Your task to perform on an android device: set an alarm Image 0: 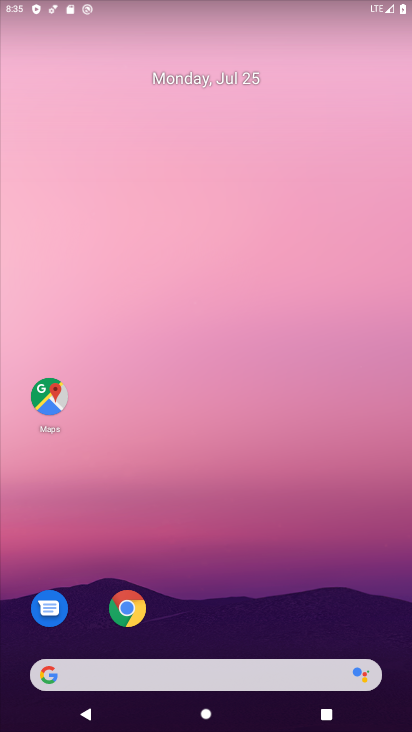
Step 0: drag from (233, 727) to (249, 301)
Your task to perform on an android device: set an alarm Image 1: 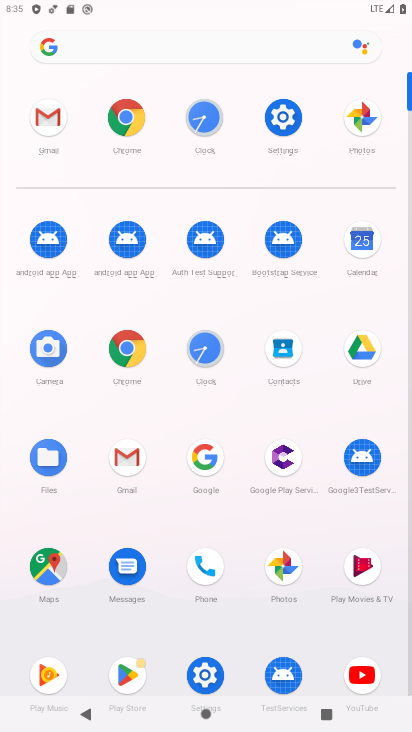
Step 1: click (209, 343)
Your task to perform on an android device: set an alarm Image 2: 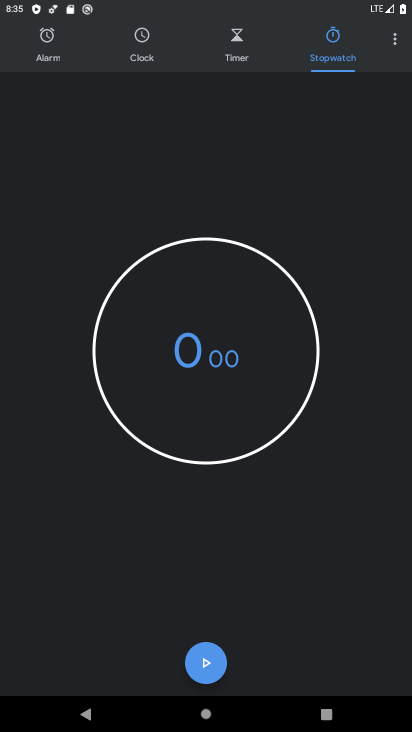
Step 2: click (48, 45)
Your task to perform on an android device: set an alarm Image 3: 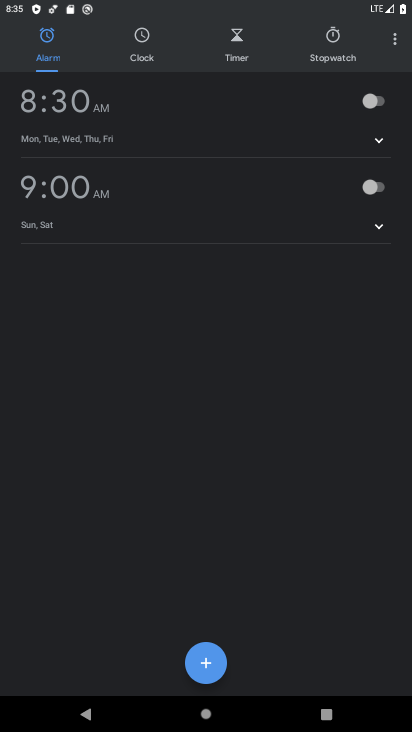
Step 3: click (208, 666)
Your task to perform on an android device: set an alarm Image 4: 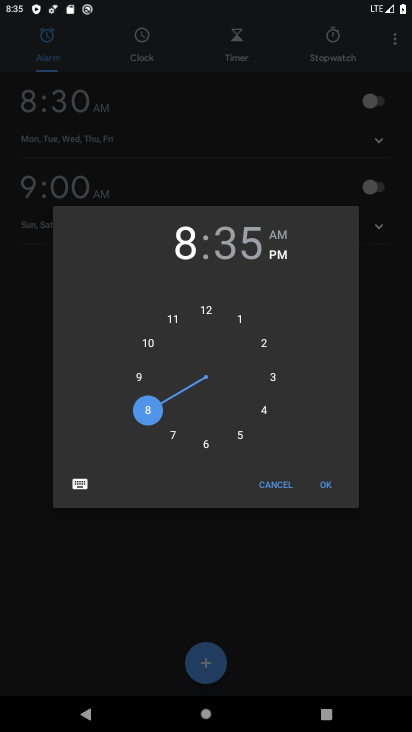
Step 4: click (210, 306)
Your task to perform on an android device: set an alarm Image 5: 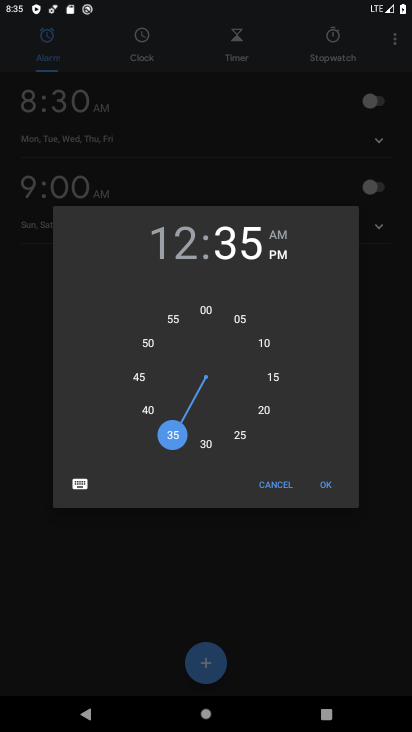
Step 5: click (270, 378)
Your task to perform on an android device: set an alarm Image 6: 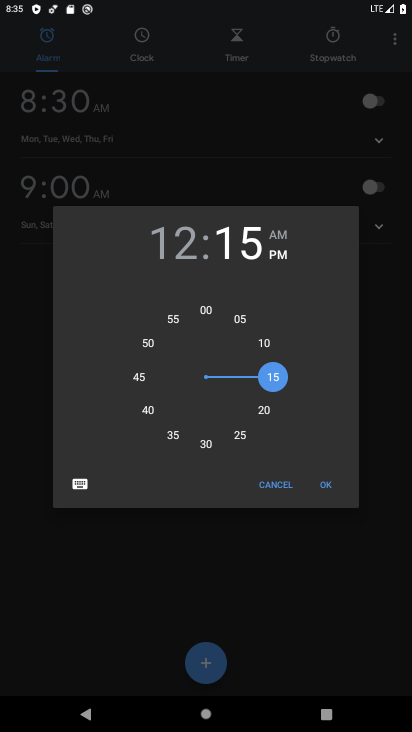
Step 6: click (324, 483)
Your task to perform on an android device: set an alarm Image 7: 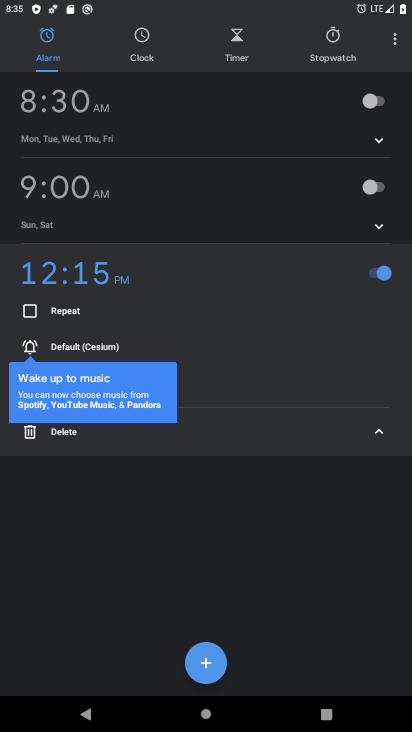
Step 7: task complete